Your task to perform on an android device: Open calendar and show me the fourth week of next month Image 0: 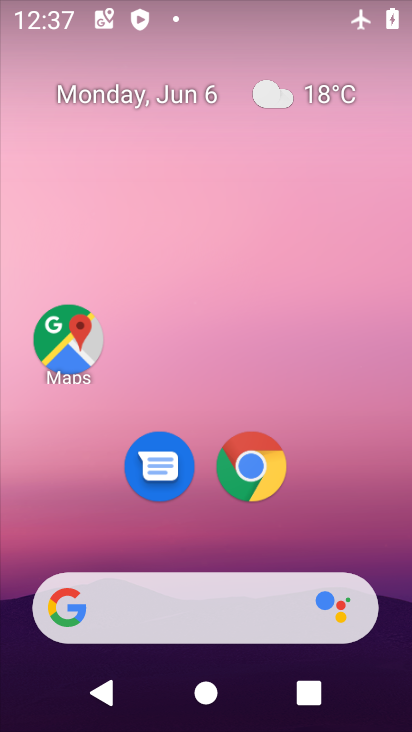
Step 0: drag from (325, 512) to (235, 75)
Your task to perform on an android device: Open calendar and show me the fourth week of next month Image 1: 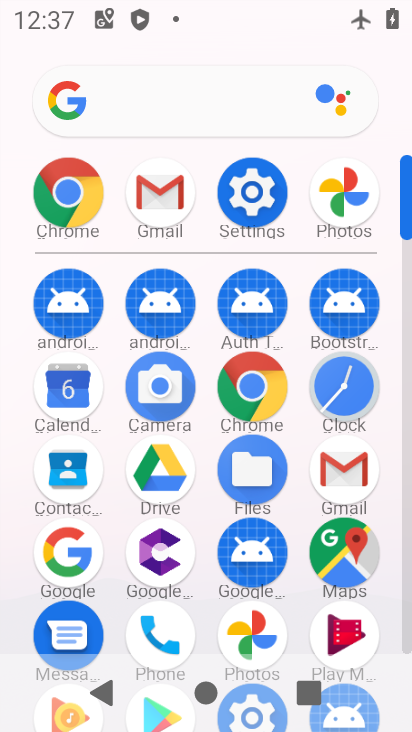
Step 1: drag from (4, 613) to (9, 274)
Your task to perform on an android device: Open calendar and show me the fourth week of next month Image 2: 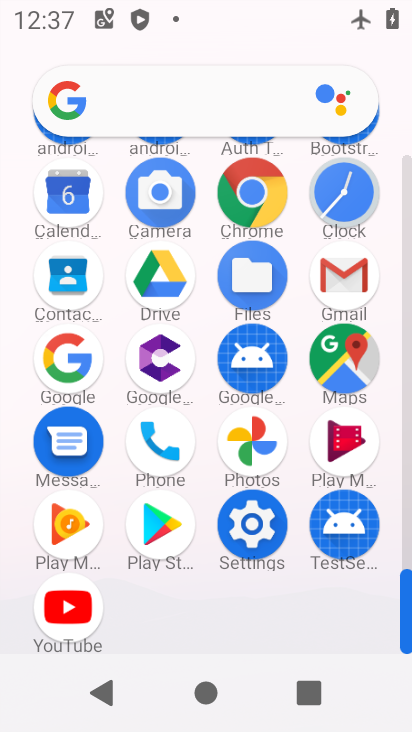
Step 2: click (59, 190)
Your task to perform on an android device: Open calendar and show me the fourth week of next month Image 3: 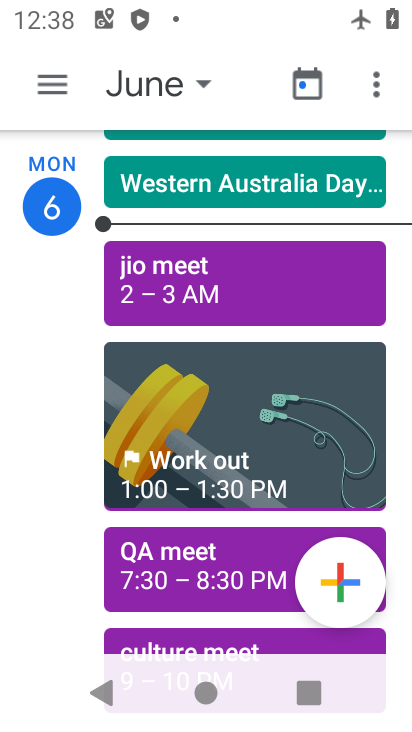
Step 3: click (177, 83)
Your task to perform on an android device: Open calendar and show me the fourth week of next month Image 4: 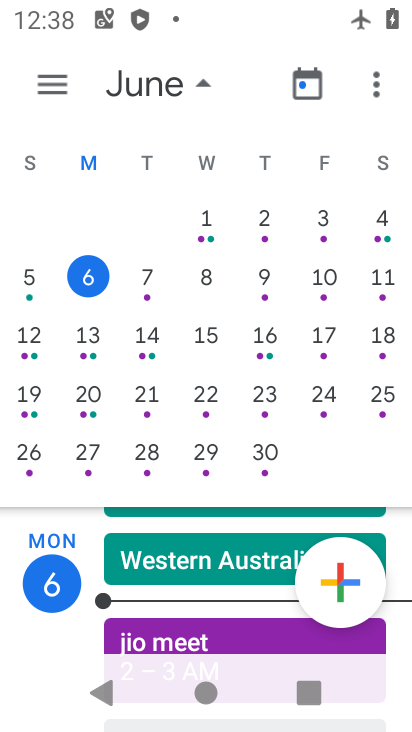
Step 4: drag from (383, 303) to (12, 310)
Your task to perform on an android device: Open calendar and show me the fourth week of next month Image 5: 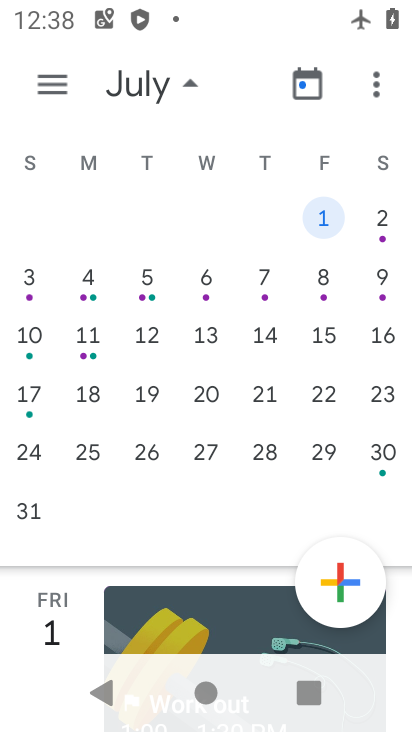
Step 5: click (15, 451)
Your task to perform on an android device: Open calendar and show me the fourth week of next month Image 6: 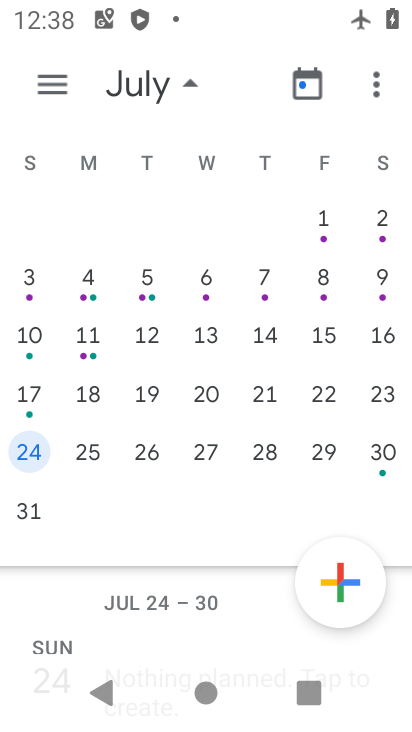
Step 6: click (61, 86)
Your task to perform on an android device: Open calendar and show me the fourth week of next month Image 7: 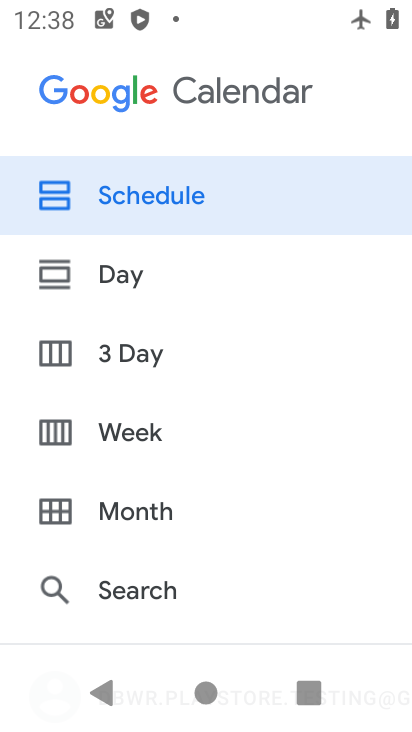
Step 7: click (163, 430)
Your task to perform on an android device: Open calendar and show me the fourth week of next month Image 8: 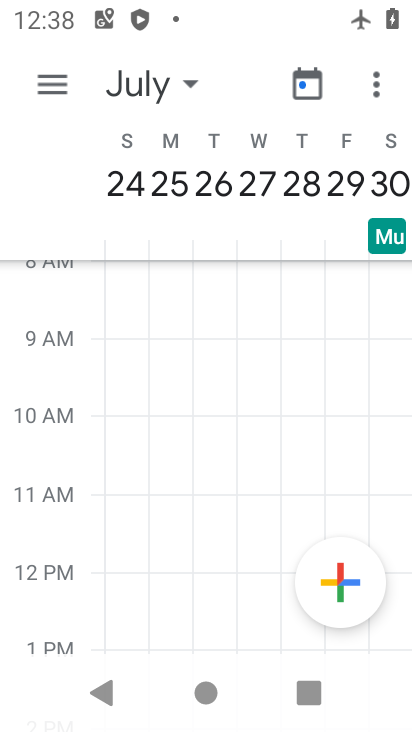
Step 8: click (67, 78)
Your task to perform on an android device: Open calendar and show me the fourth week of next month Image 9: 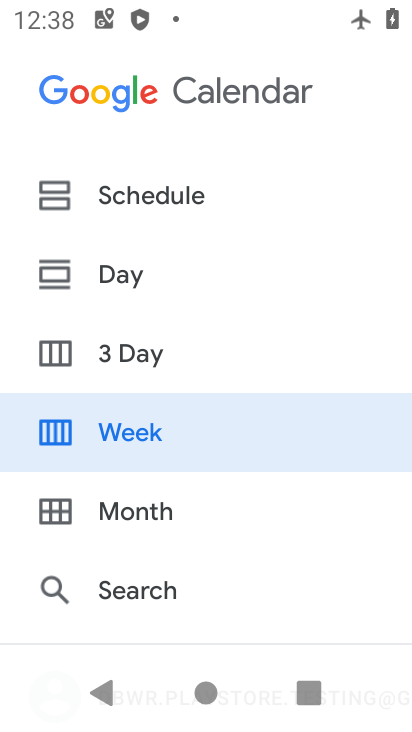
Step 9: click (164, 429)
Your task to perform on an android device: Open calendar and show me the fourth week of next month Image 10: 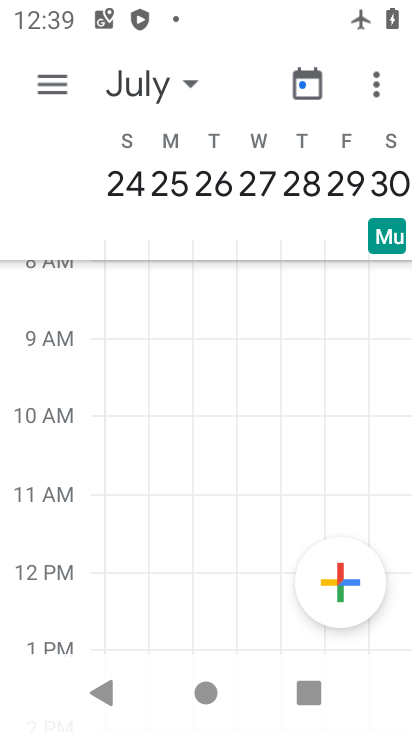
Step 10: task complete